Your task to perform on an android device: set default search engine in the chrome app Image 0: 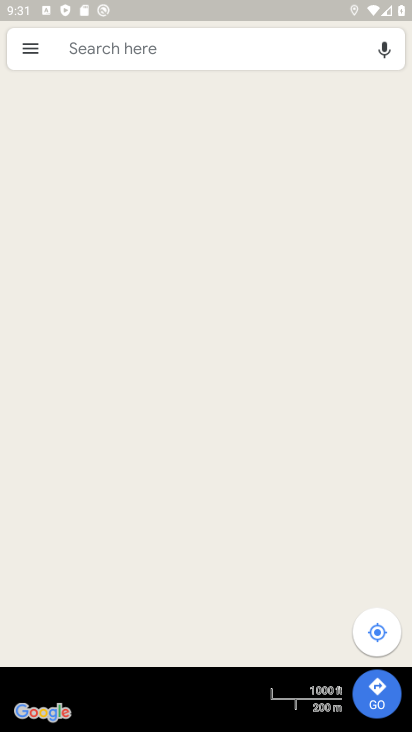
Step 0: press home button
Your task to perform on an android device: set default search engine in the chrome app Image 1: 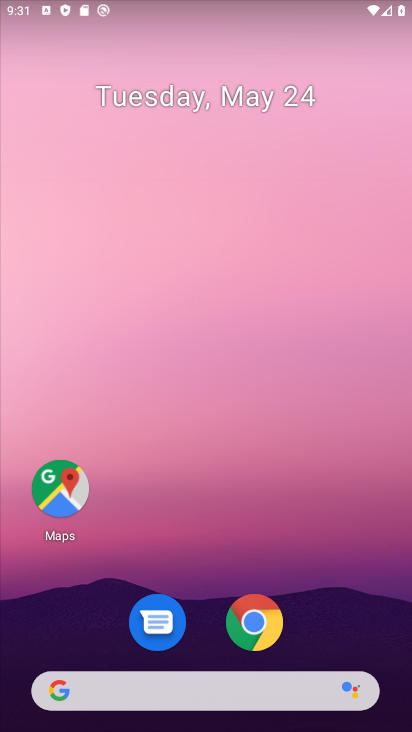
Step 1: drag from (252, 708) to (383, 164)
Your task to perform on an android device: set default search engine in the chrome app Image 2: 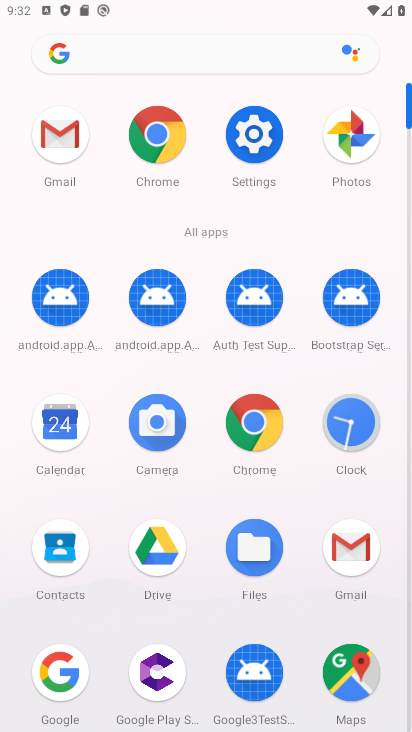
Step 2: click (166, 160)
Your task to perform on an android device: set default search engine in the chrome app Image 3: 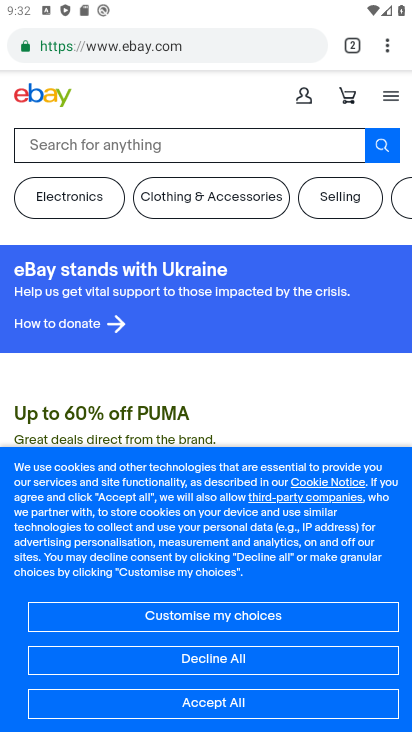
Step 3: click (385, 57)
Your task to perform on an android device: set default search engine in the chrome app Image 4: 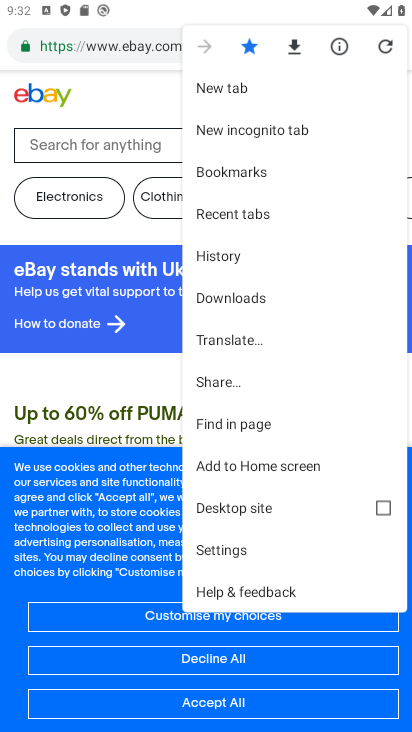
Step 4: click (229, 552)
Your task to perform on an android device: set default search engine in the chrome app Image 5: 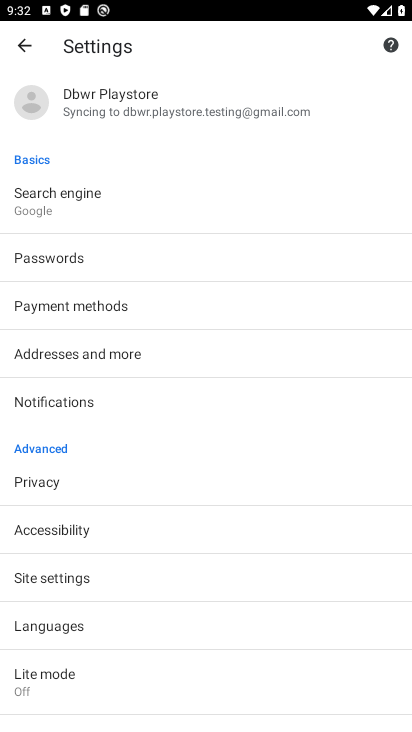
Step 5: click (145, 202)
Your task to perform on an android device: set default search engine in the chrome app Image 6: 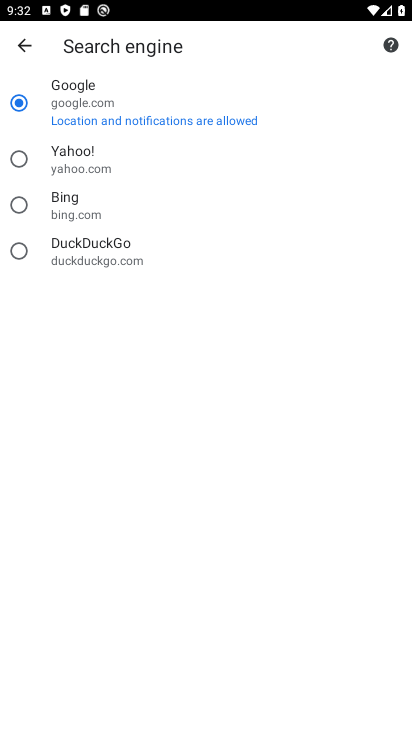
Step 6: task complete